Your task to perform on an android device: turn on priority inbox in the gmail app Image 0: 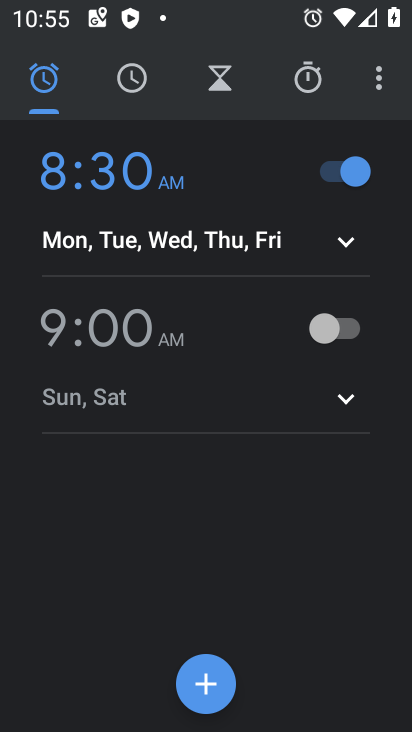
Step 0: press home button
Your task to perform on an android device: turn on priority inbox in the gmail app Image 1: 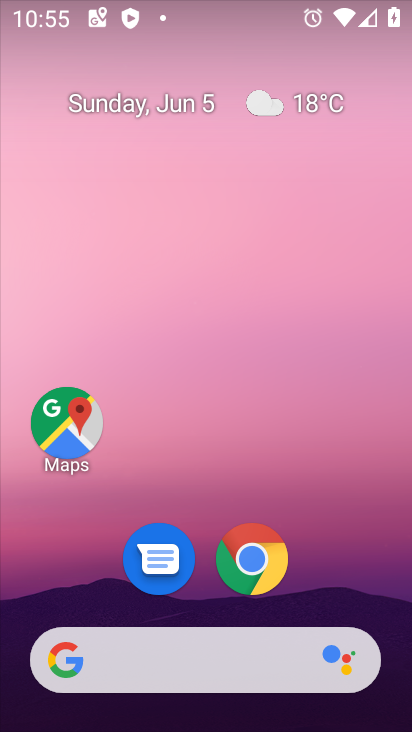
Step 1: drag from (402, 728) to (309, 204)
Your task to perform on an android device: turn on priority inbox in the gmail app Image 2: 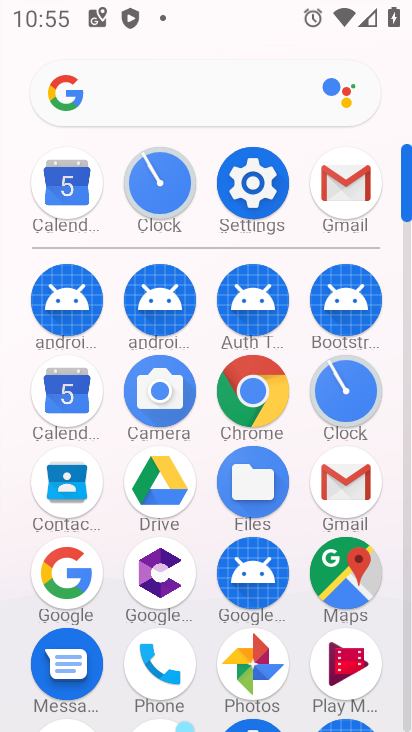
Step 2: click (246, 190)
Your task to perform on an android device: turn on priority inbox in the gmail app Image 3: 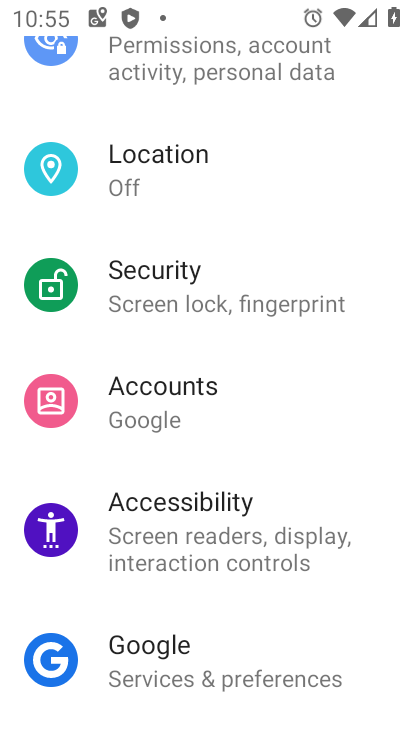
Step 3: press back button
Your task to perform on an android device: turn on priority inbox in the gmail app Image 4: 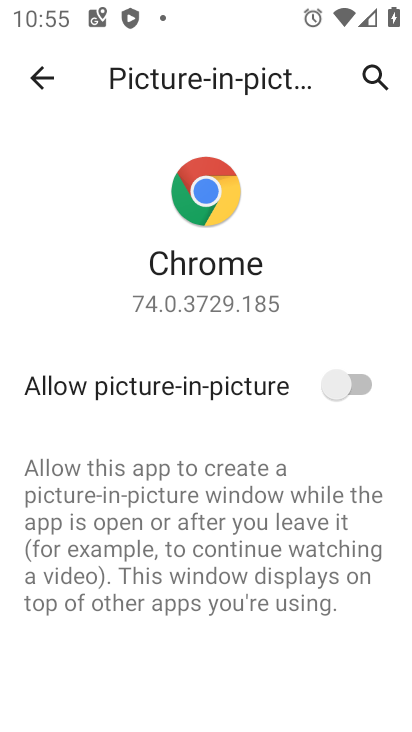
Step 4: press back button
Your task to perform on an android device: turn on priority inbox in the gmail app Image 5: 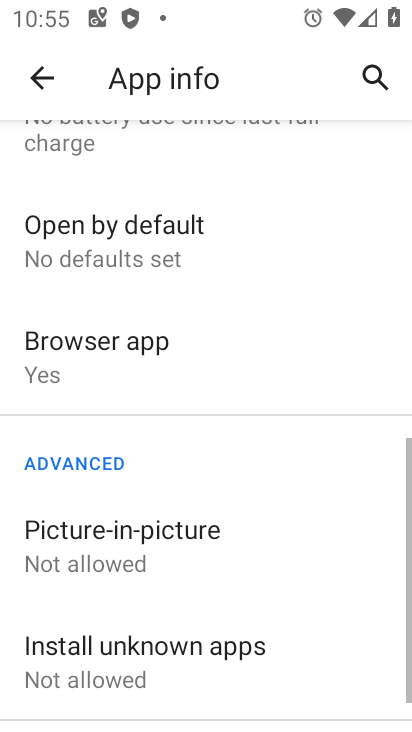
Step 5: press back button
Your task to perform on an android device: turn on priority inbox in the gmail app Image 6: 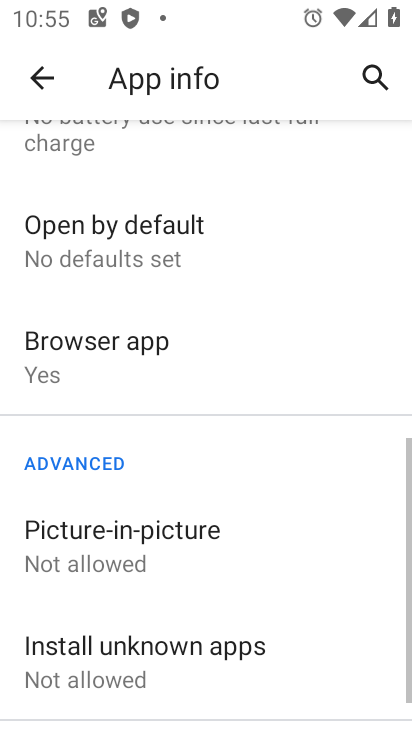
Step 6: press back button
Your task to perform on an android device: turn on priority inbox in the gmail app Image 7: 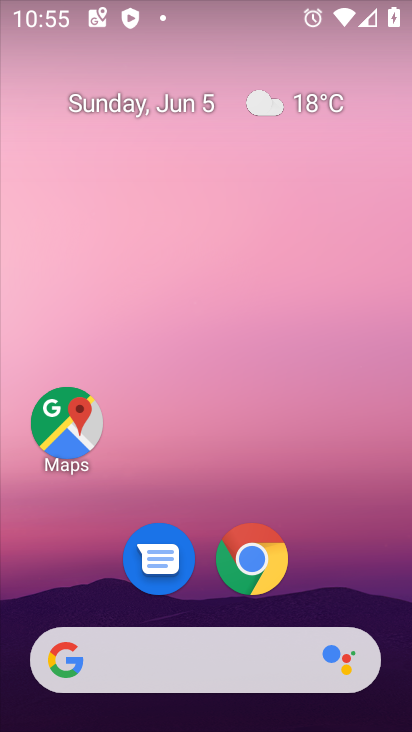
Step 7: drag from (369, 666) to (259, 92)
Your task to perform on an android device: turn on priority inbox in the gmail app Image 8: 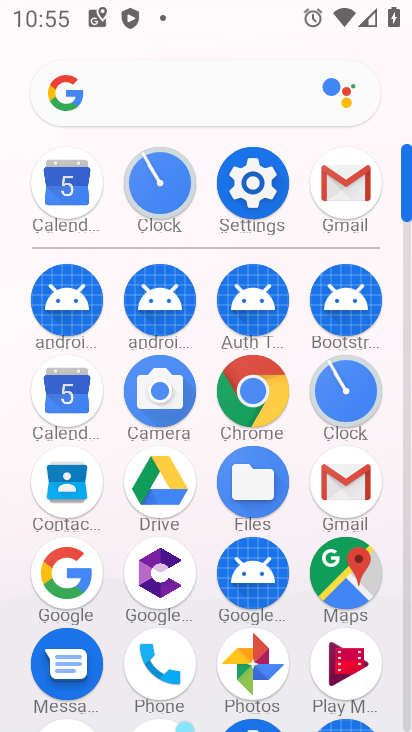
Step 8: click (341, 496)
Your task to perform on an android device: turn on priority inbox in the gmail app Image 9: 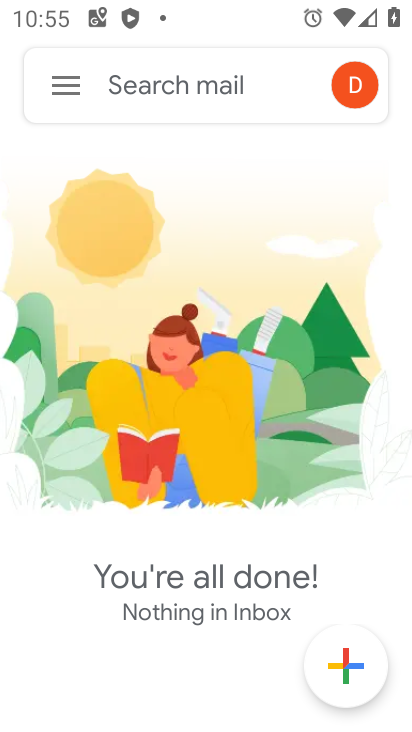
Step 9: click (61, 105)
Your task to perform on an android device: turn on priority inbox in the gmail app Image 10: 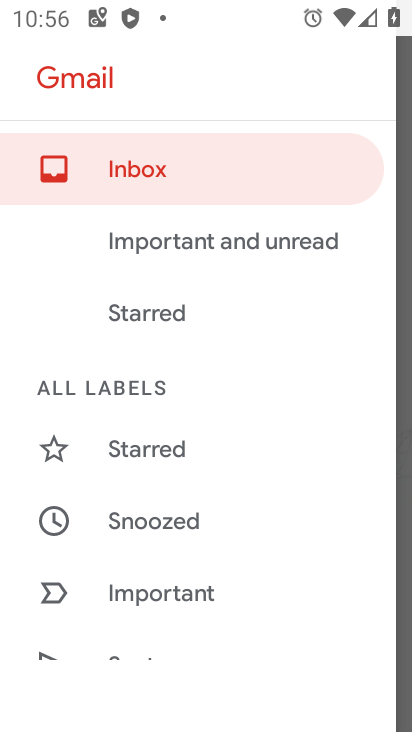
Step 10: drag from (304, 611) to (293, 114)
Your task to perform on an android device: turn on priority inbox in the gmail app Image 11: 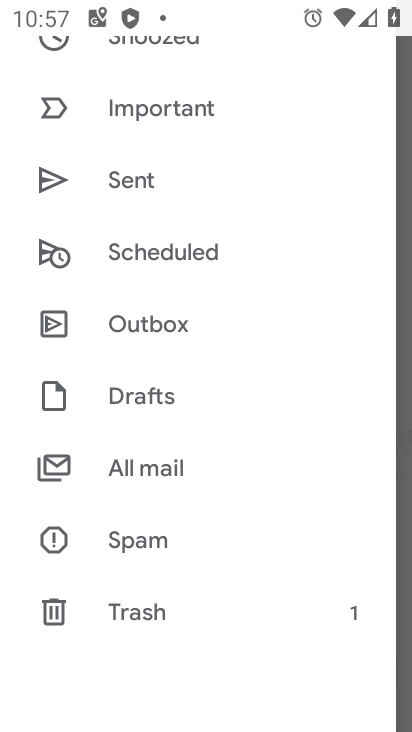
Step 11: drag from (251, 630) to (219, 147)
Your task to perform on an android device: turn on priority inbox in the gmail app Image 12: 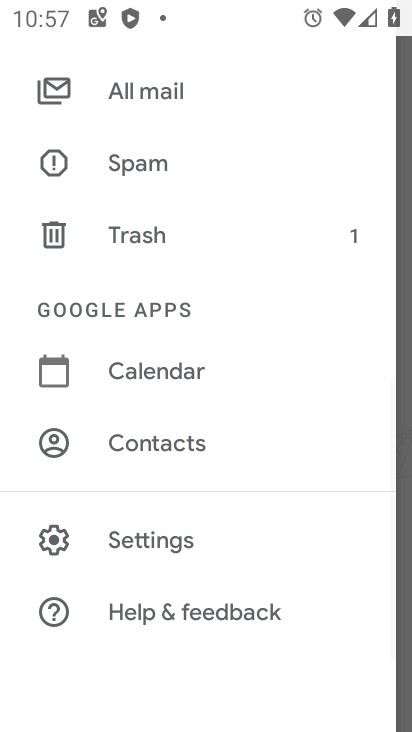
Step 12: click (147, 544)
Your task to perform on an android device: turn on priority inbox in the gmail app Image 13: 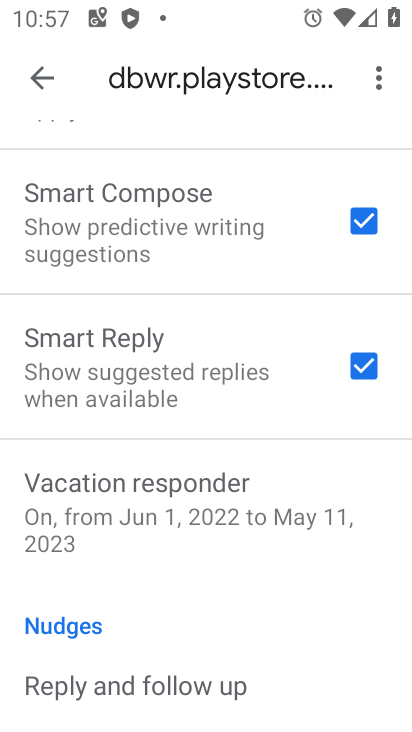
Step 13: task complete